Your task to perform on an android device: make emails show in primary in the gmail app Image 0: 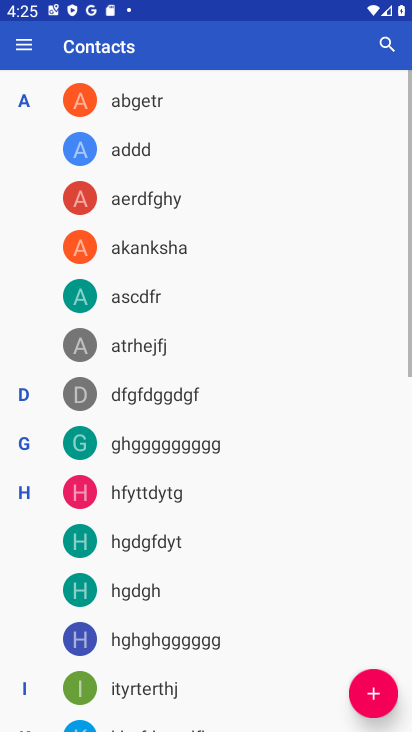
Step 0: press home button
Your task to perform on an android device: make emails show in primary in the gmail app Image 1: 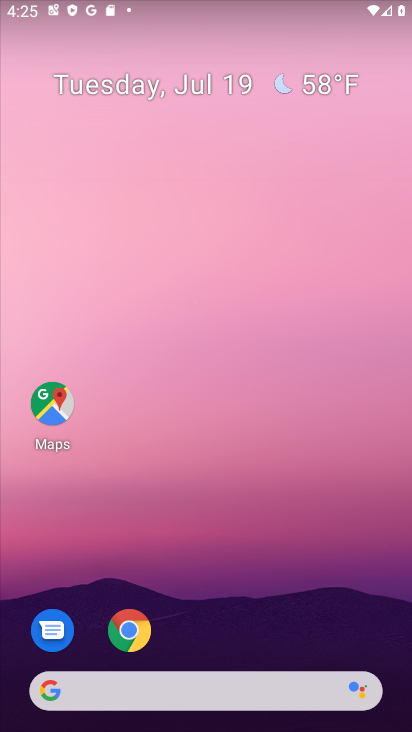
Step 1: drag from (278, 593) to (293, 14)
Your task to perform on an android device: make emails show in primary in the gmail app Image 2: 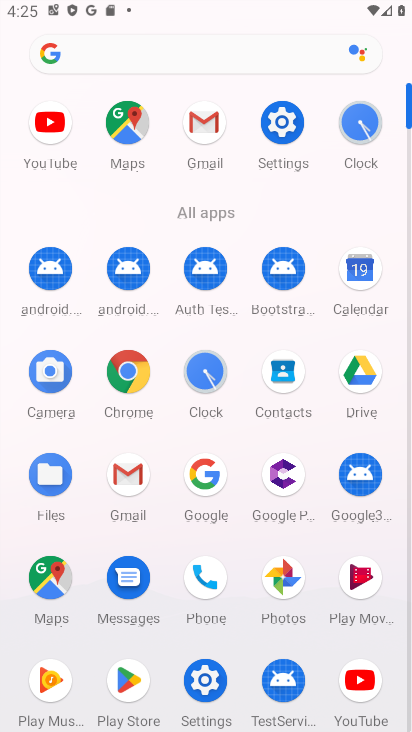
Step 2: click (205, 129)
Your task to perform on an android device: make emails show in primary in the gmail app Image 3: 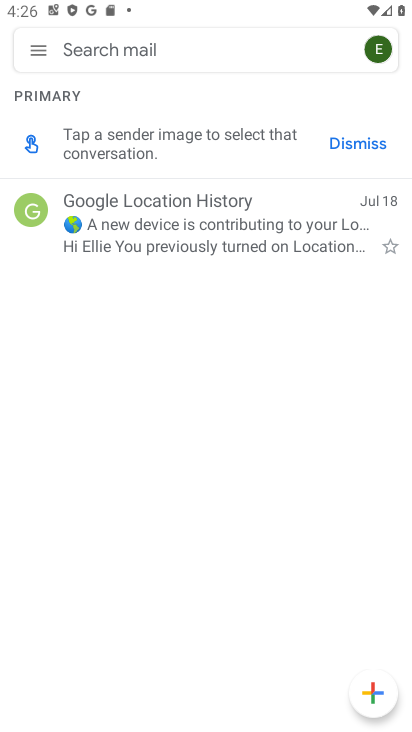
Step 3: click (37, 47)
Your task to perform on an android device: make emails show in primary in the gmail app Image 4: 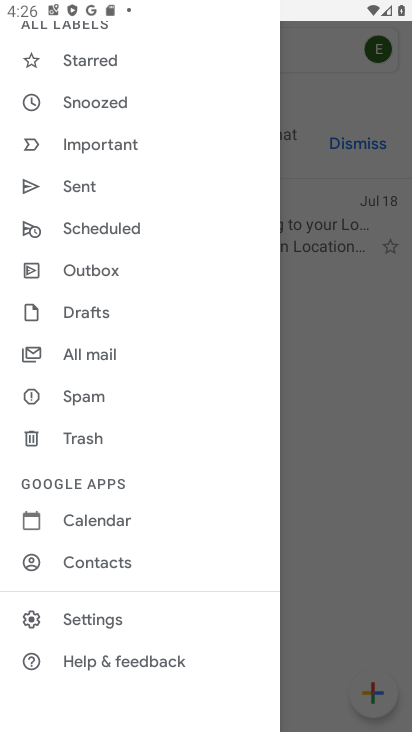
Step 4: click (110, 620)
Your task to perform on an android device: make emails show in primary in the gmail app Image 5: 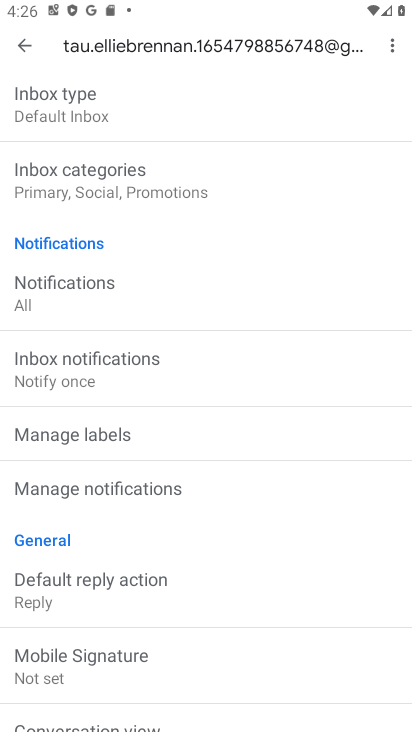
Step 5: click (44, 185)
Your task to perform on an android device: make emails show in primary in the gmail app Image 6: 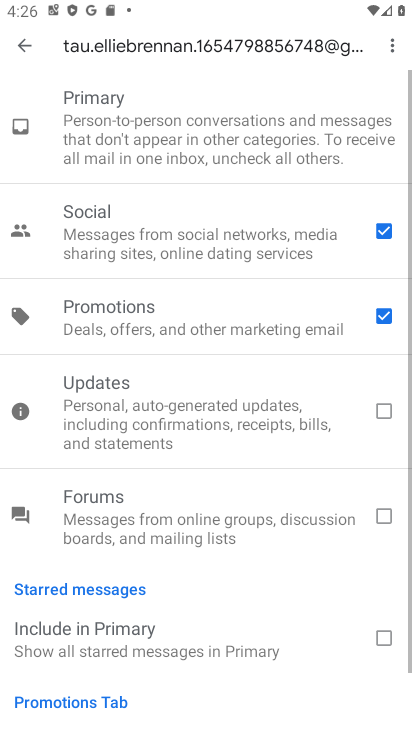
Step 6: click (388, 222)
Your task to perform on an android device: make emails show in primary in the gmail app Image 7: 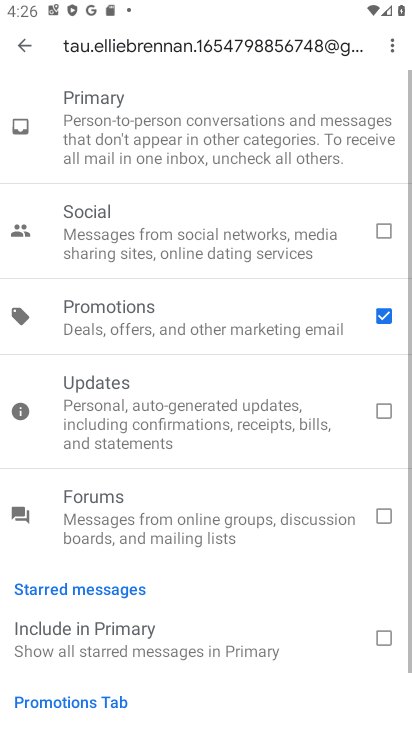
Step 7: click (384, 323)
Your task to perform on an android device: make emails show in primary in the gmail app Image 8: 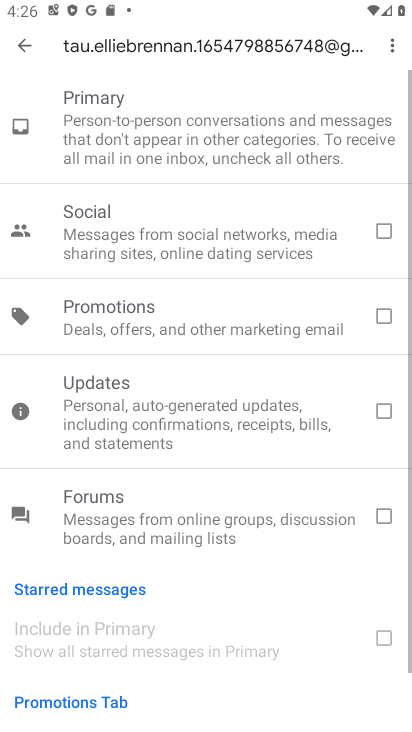
Step 8: task complete